Your task to perform on an android device: turn vacation reply on in the gmail app Image 0: 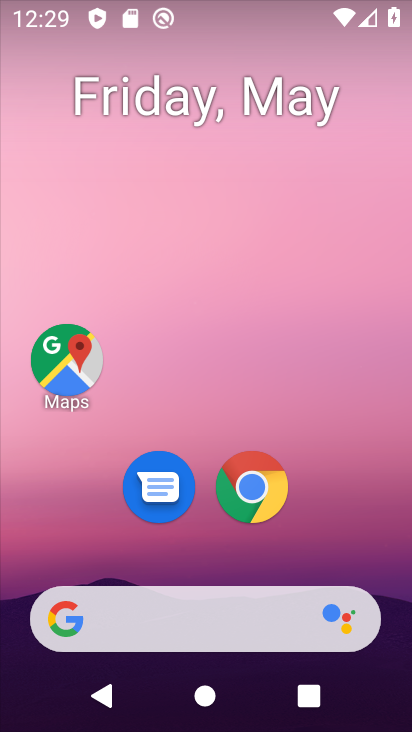
Step 0: drag from (112, 581) to (216, 97)
Your task to perform on an android device: turn vacation reply on in the gmail app Image 1: 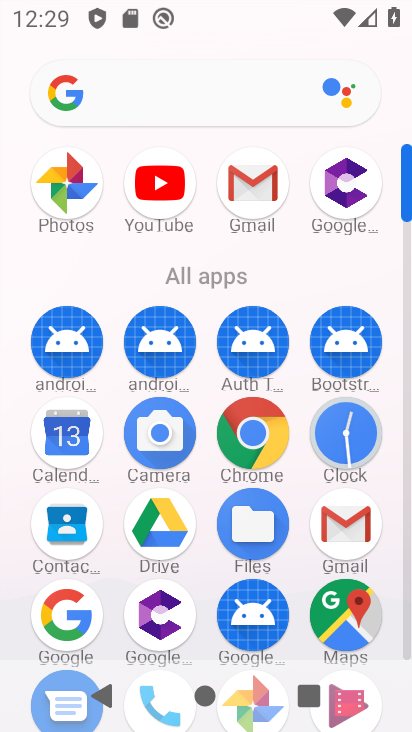
Step 1: click (342, 513)
Your task to perform on an android device: turn vacation reply on in the gmail app Image 2: 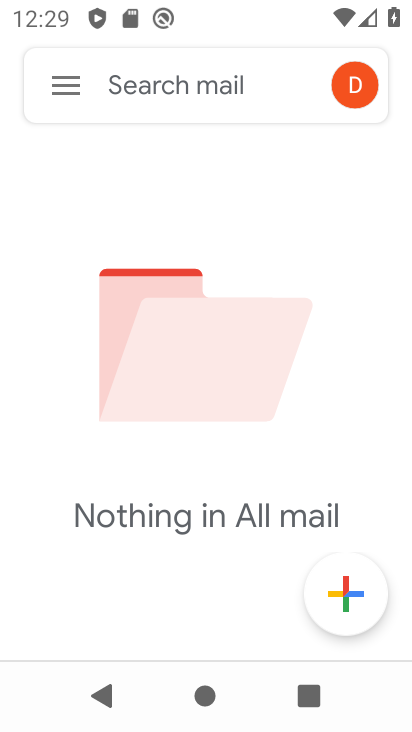
Step 2: click (74, 94)
Your task to perform on an android device: turn vacation reply on in the gmail app Image 3: 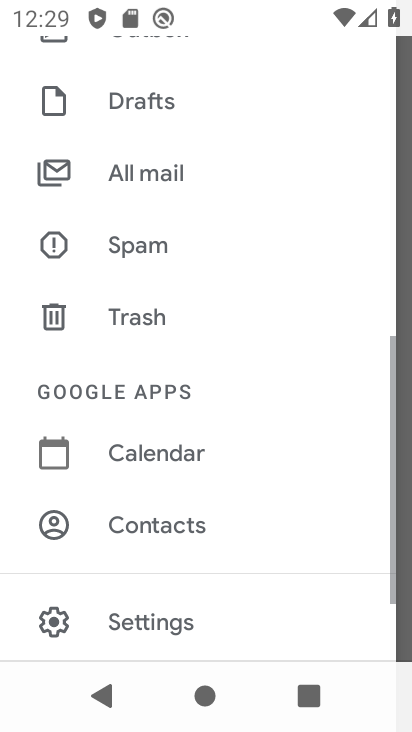
Step 3: drag from (95, 537) to (166, 239)
Your task to perform on an android device: turn vacation reply on in the gmail app Image 4: 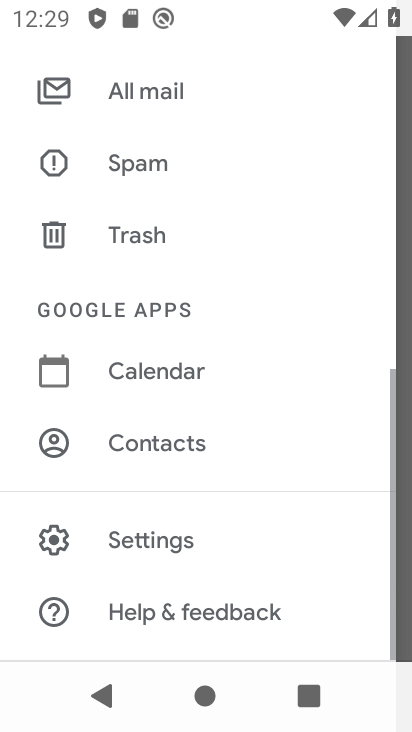
Step 4: click (180, 547)
Your task to perform on an android device: turn vacation reply on in the gmail app Image 5: 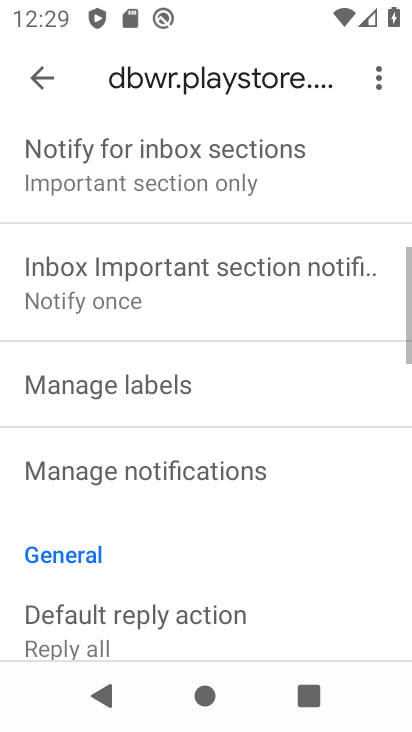
Step 5: drag from (237, 582) to (290, 266)
Your task to perform on an android device: turn vacation reply on in the gmail app Image 6: 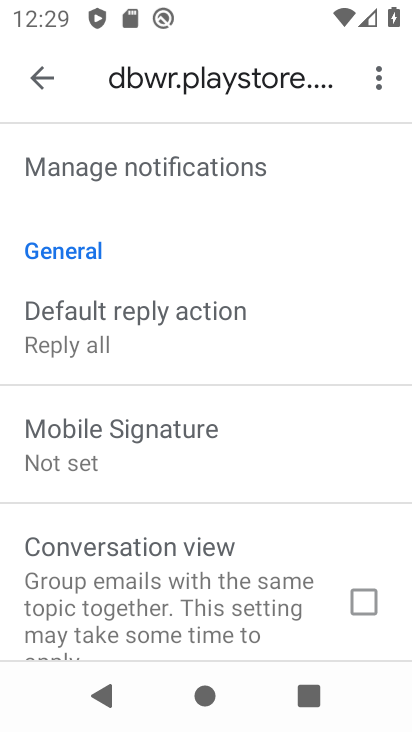
Step 6: drag from (218, 628) to (295, 167)
Your task to perform on an android device: turn vacation reply on in the gmail app Image 7: 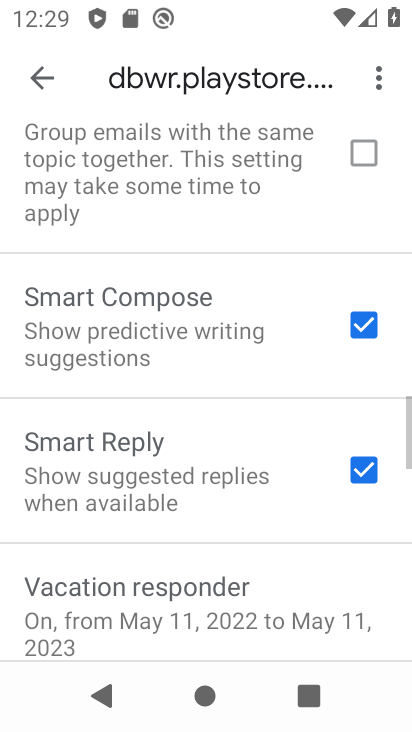
Step 7: drag from (229, 539) to (274, 177)
Your task to perform on an android device: turn vacation reply on in the gmail app Image 8: 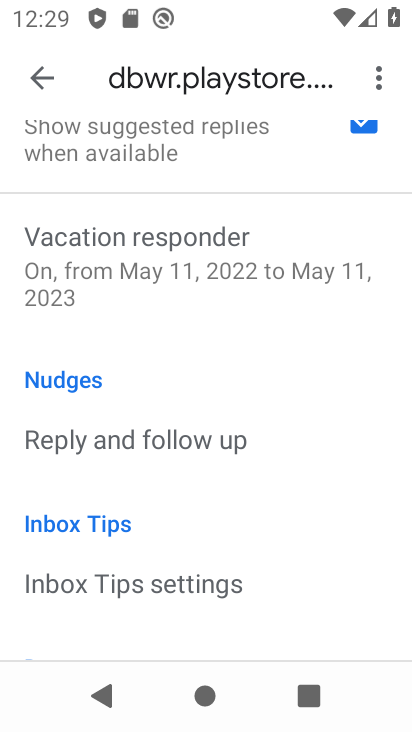
Step 8: click (255, 274)
Your task to perform on an android device: turn vacation reply on in the gmail app Image 9: 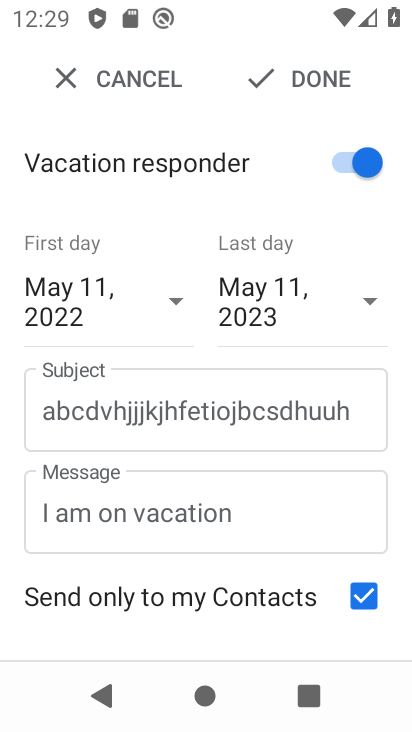
Step 9: click (255, 274)
Your task to perform on an android device: turn vacation reply on in the gmail app Image 10: 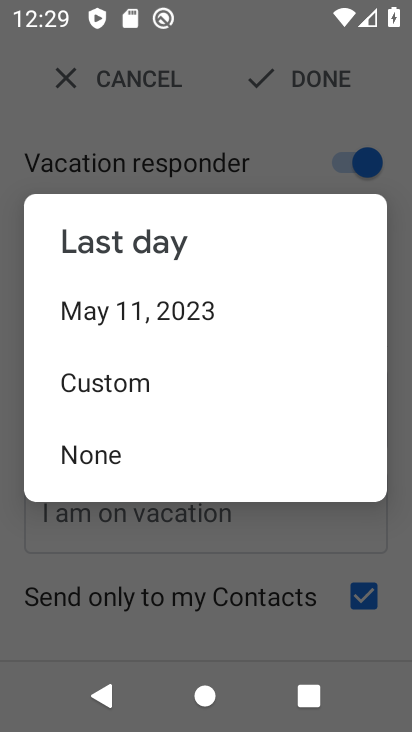
Step 10: click (331, 86)
Your task to perform on an android device: turn vacation reply on in the gmail app Image 11: 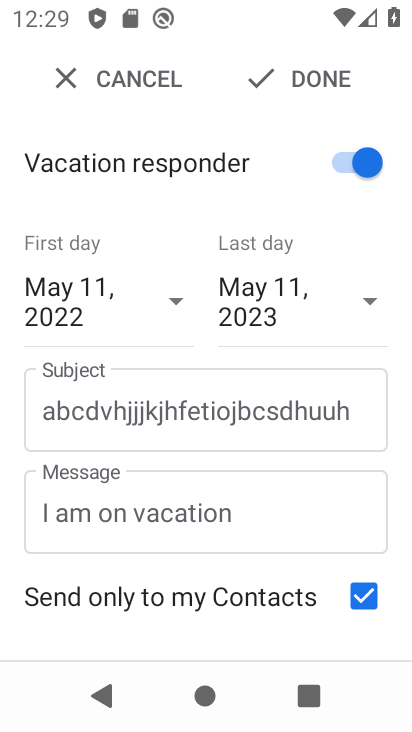
Step 11: task complete